Your task to perform on an android device: Open battery settings Image 0: 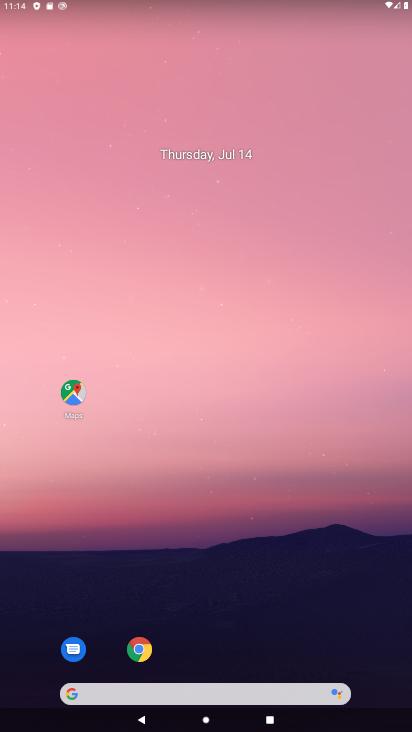
Step 0: drag from (204, 669) to (337, 12)
Your task to perform on an android device: Open battery settings Image 1: 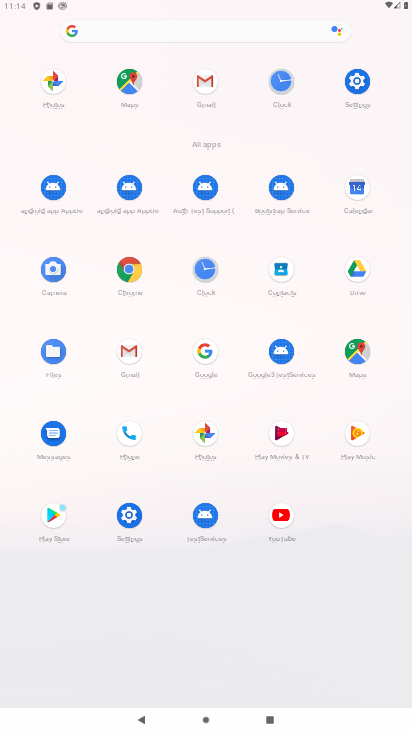
Step 1: click (126, 526)
Your task to perform on an android device: Open battery settings Image 2: 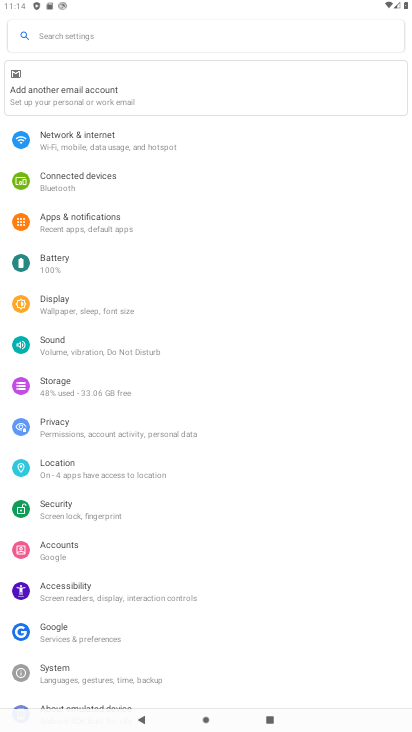
Step 2: click (98, 274)
Your task to perform on an android device: Open battery settings Image 3: 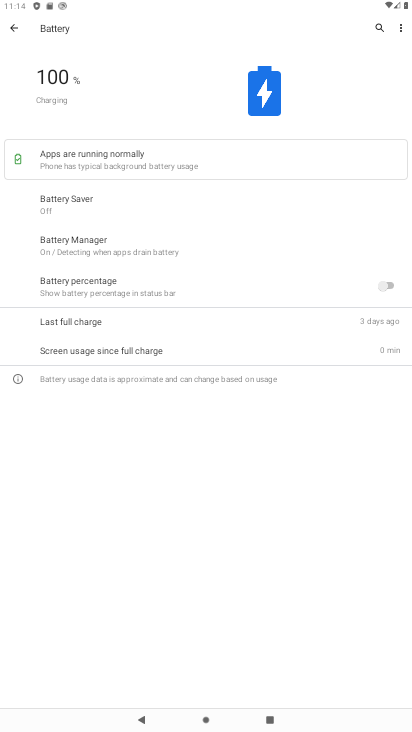
Step 3: task complete